Your task to perform on an android device: turn on sleep mode Image 0: 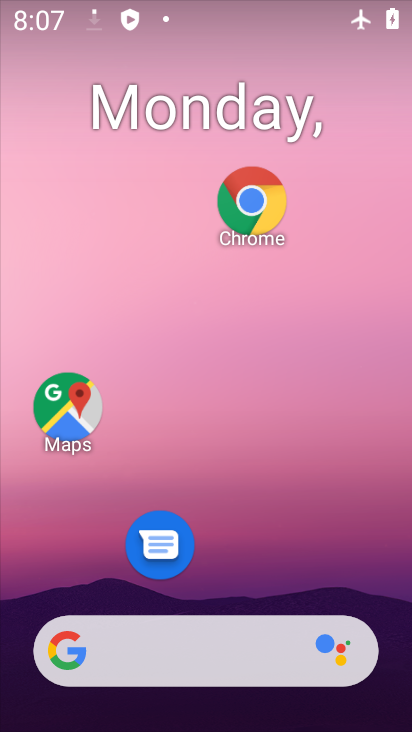
Step 0: drag from (210, 546) to (191, 77)
Your task to perform on an android device: turn on sleep mode Image 1: 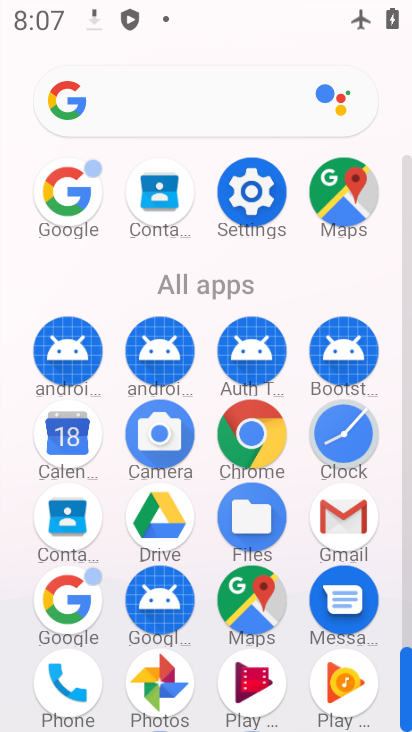
Step 1: click (258, 204)
Your task to perform on an android device: turn on sleep mode Image 2: 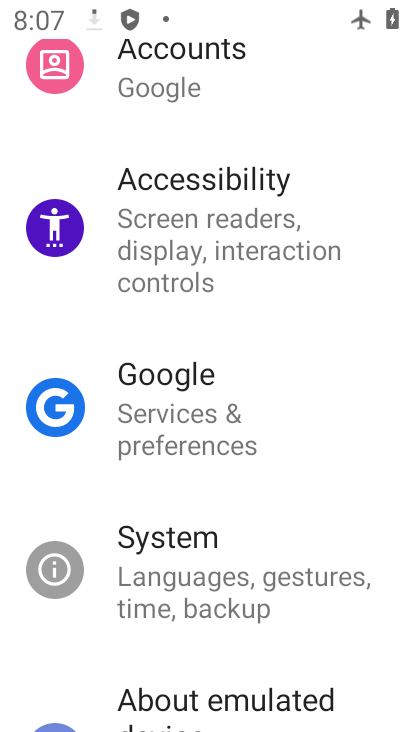
Step 2: drag from (268, 475) to (271, 623)
Your task to perform on an android device: turn on sleep mode Image 3: 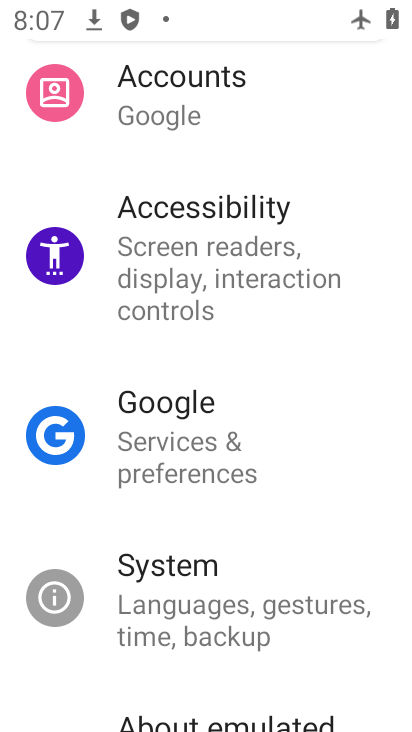
Step 3: drag from (260, 157) to (260, 514)
Your task to perform on an android device: turn on sleep mode Image 4: 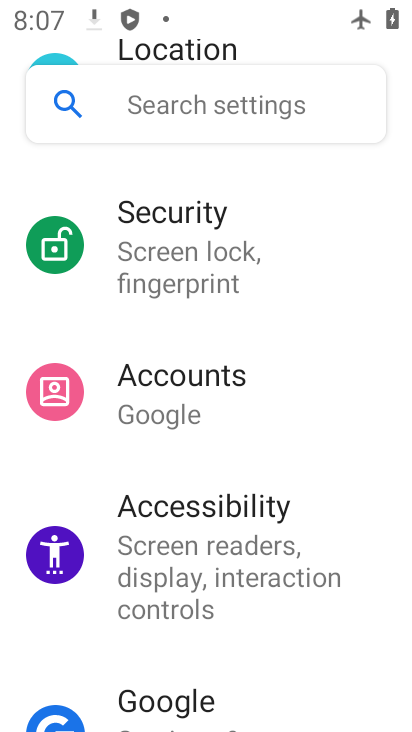
Step 4: drag from (271, 246) to (271, 539)
Your task to perform on an android device: turn on sleep mode Image 5: 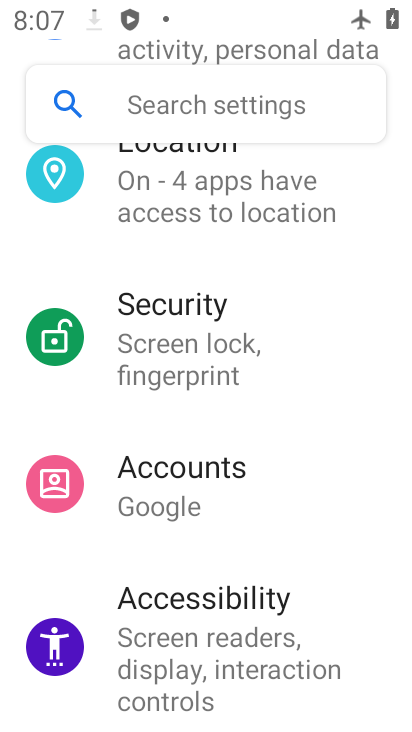
Step 5: drag from (260, 265) to (260, 617)
Your task to perform on an android device: turn on sleep mode Image 6: 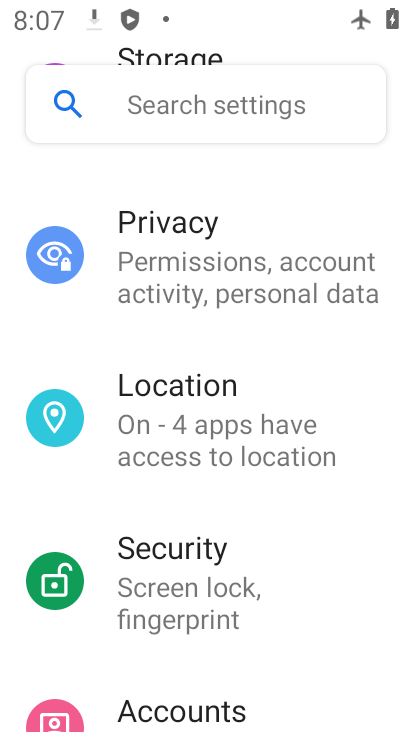
Step 6: drag from (266, 203) to (256, 555)
Your task to perform on an android device: turn on sleep mode Image 7: 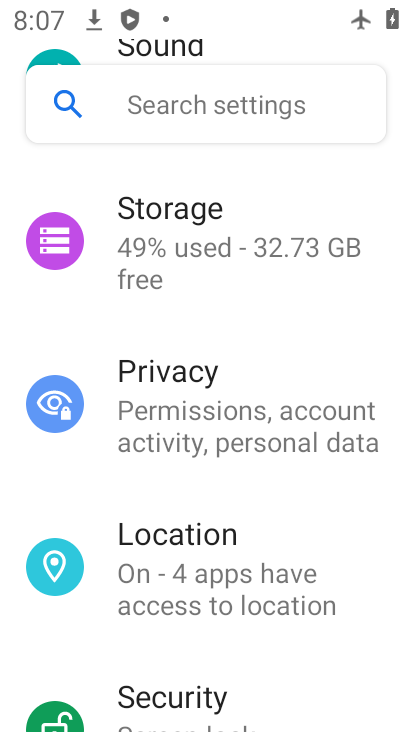
Step 7: drag from (253, 212) to (253, 604)
Your task to perform on an android device: turn on sleep mode Image 8: 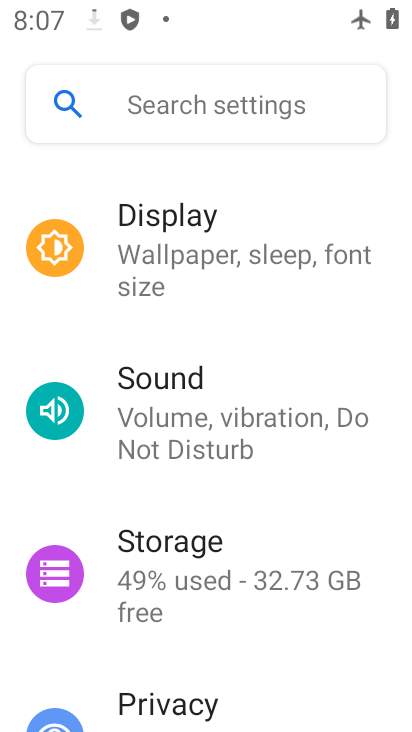
Step 8: click (257, 246)
Your task to perform on an android device: turn on sleep mode Image 9: 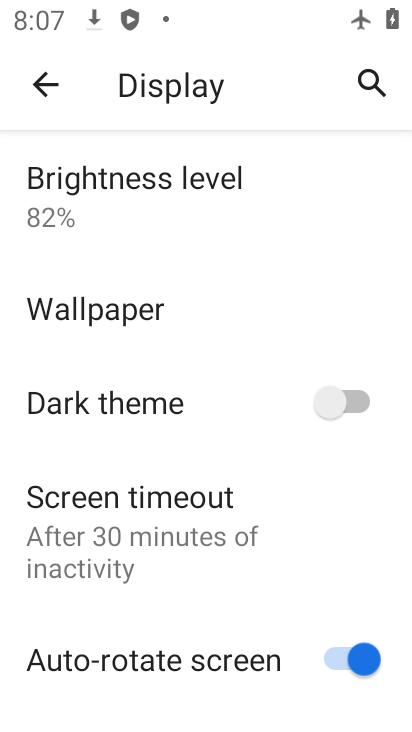
Step 9: click (151, 514)
Your task to perform on an android device: turn on sleep mode Image 10: 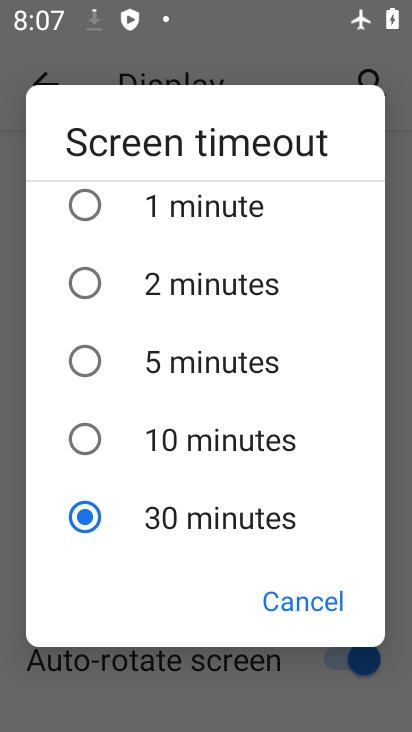
Step 10: click (147, 218)
Your task to perform on an android device: turn on sleep mode Image 11: 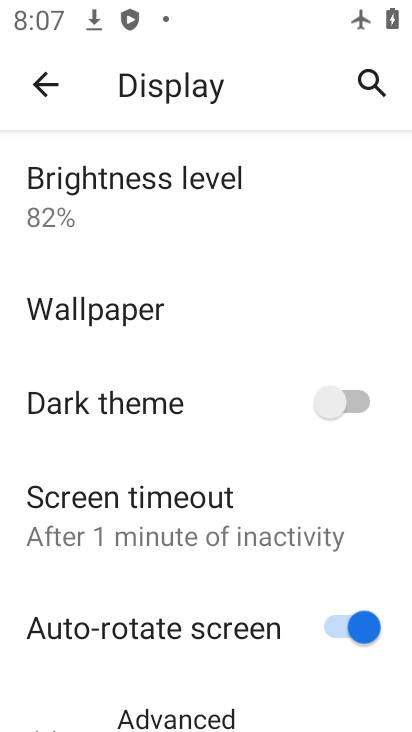
Step 11: task complete